Your task to perform on an android device: install app "Facebook Messenger" Image 0: 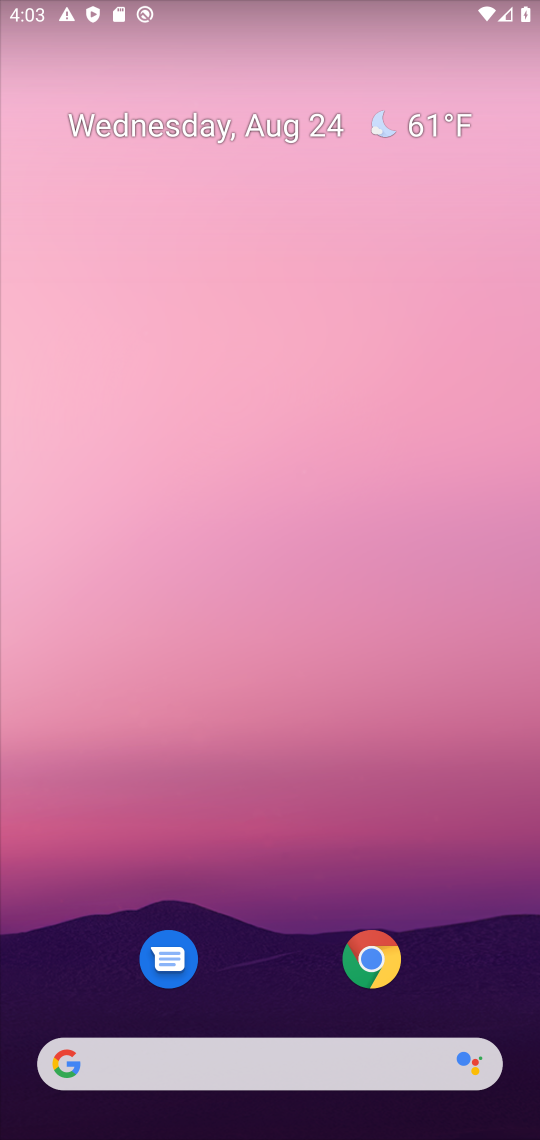
Step 0: drag from (285, 999) to (288, 337)
Your task to perform on an android device: install app "Facebook Messenger" Image 1: 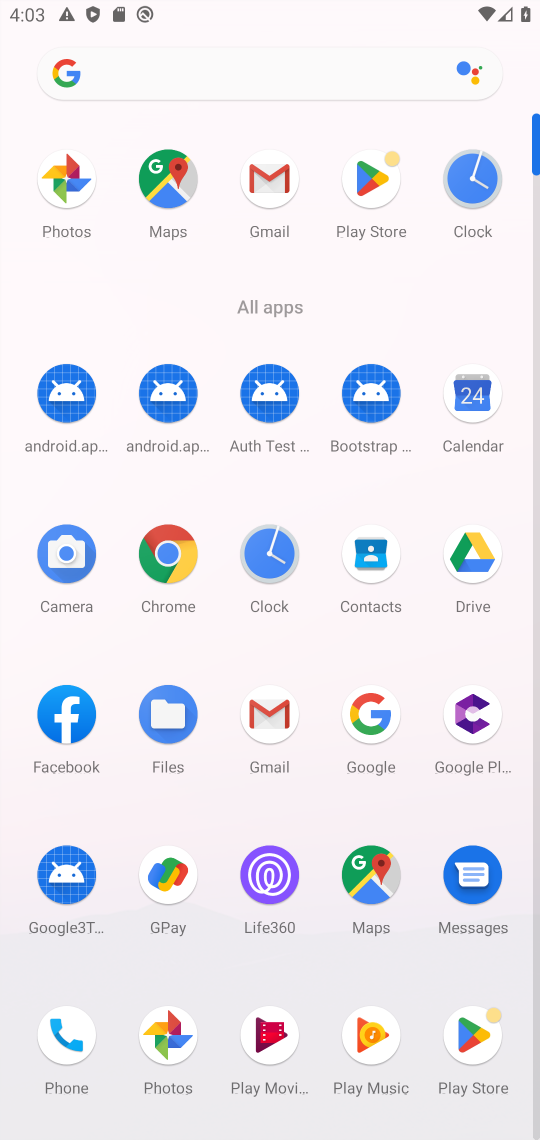
Step 1: click (370, 200)
Your task to perform on an android device: install app "Facebook Messenger" Image 2: 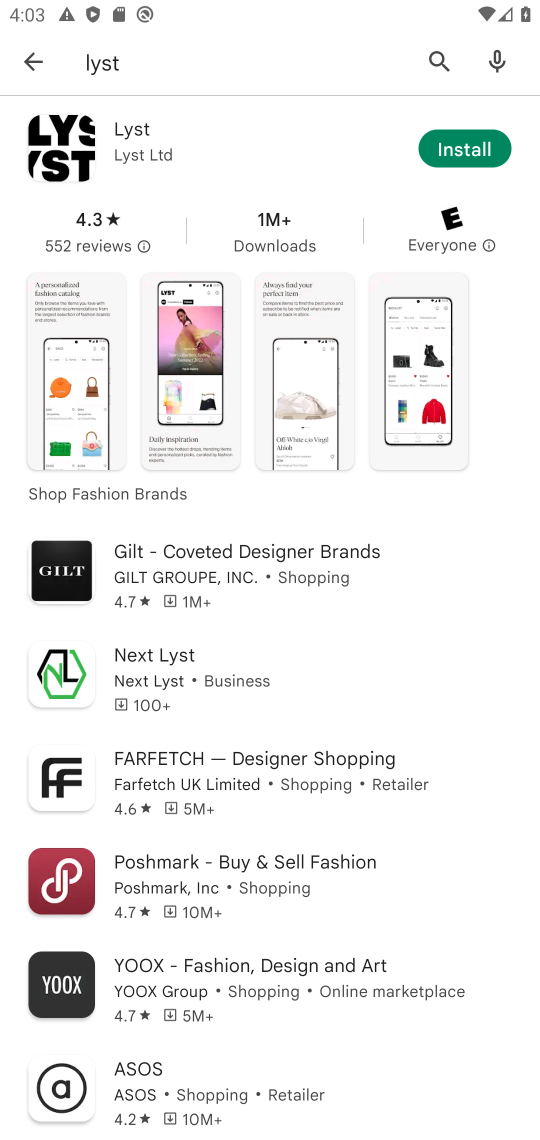
Step 2: click (438, 54)
Your task to perform on an android device: install app "Facebook Messenger" Image 3: 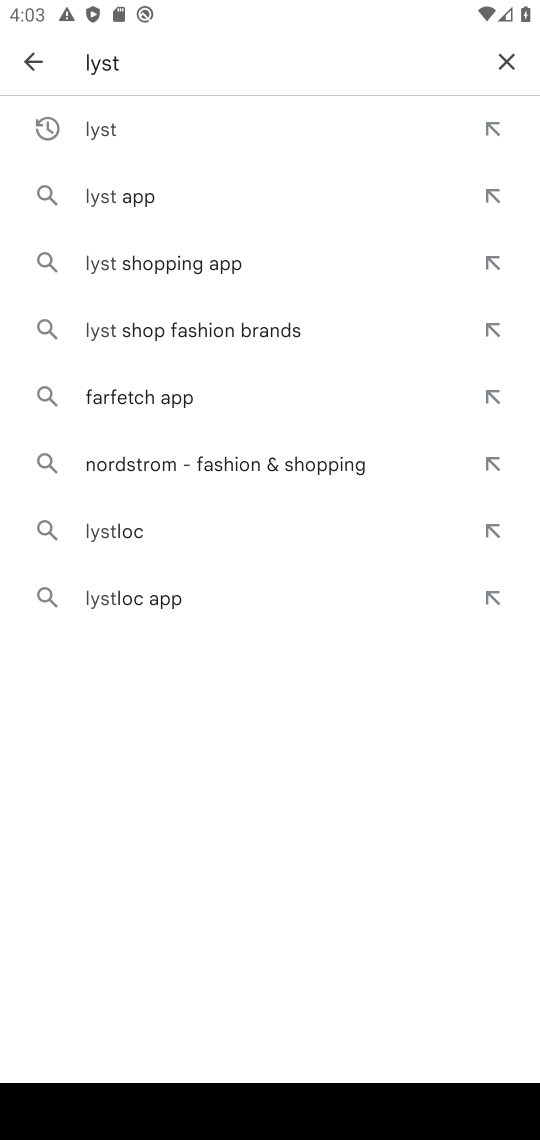
Step 3: click (498, 68)
Your task to perform on an android device: install app "Facebook Messenger" Image 4: 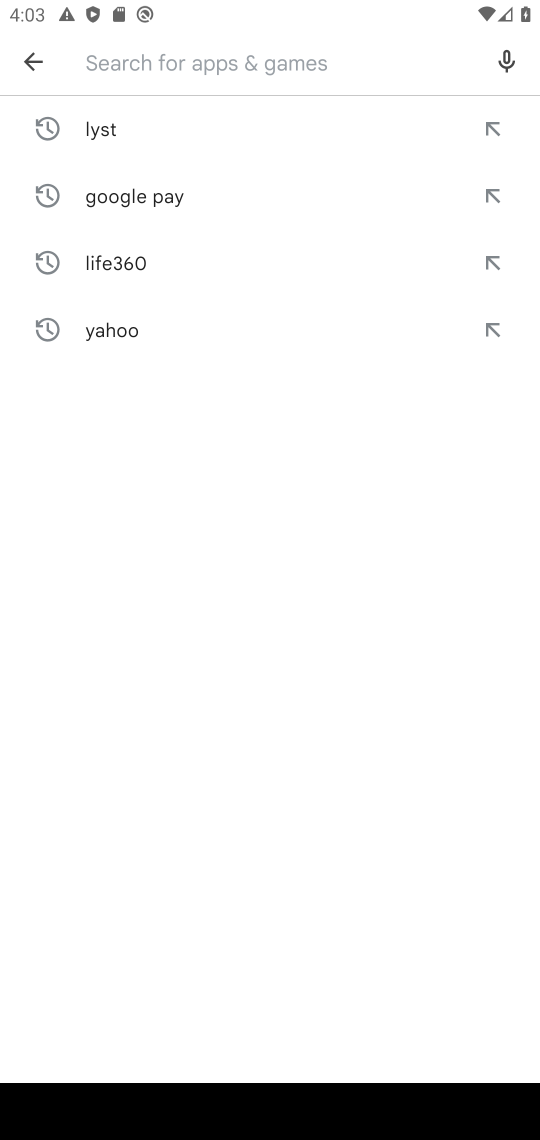
Step 4: type "facebook"
Your task to perform on an android device: install app "Facebook Messenger" Image 5: 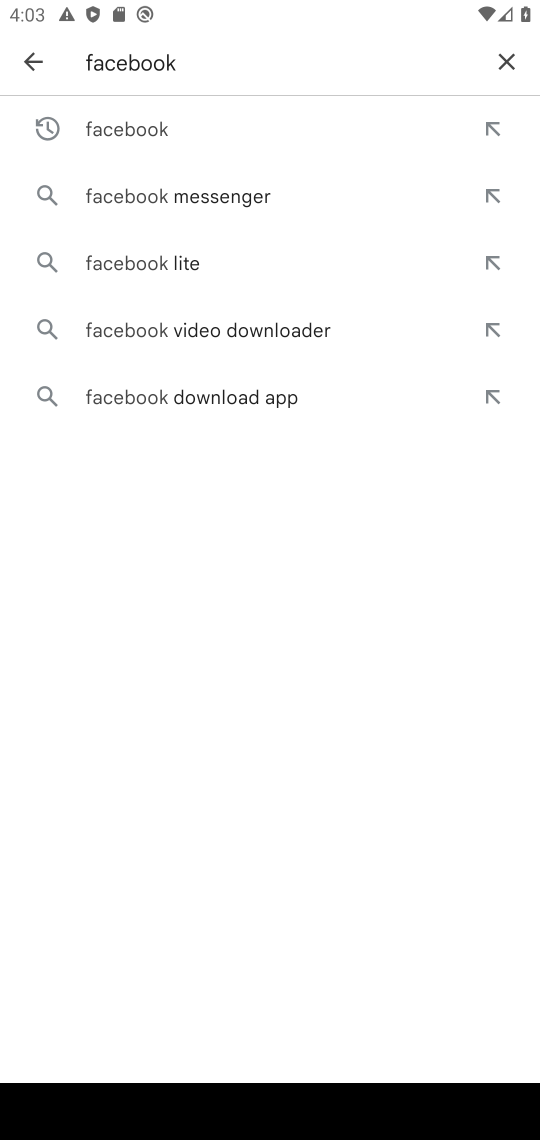
Step 5: click (279, 204)
Your task to perform on an android device: install app "Facebook Messenger" Image 6: 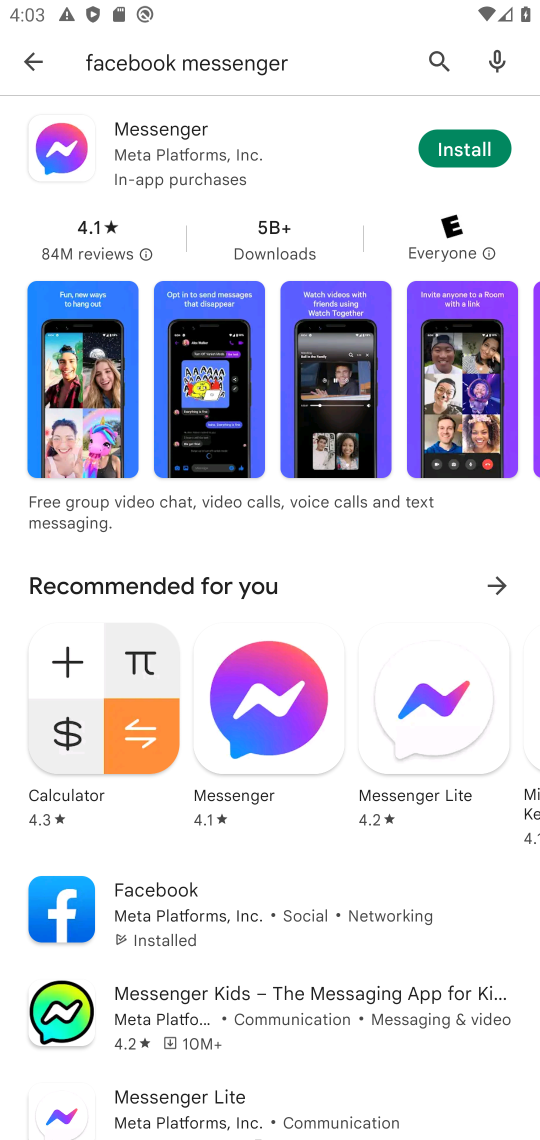
Step 6: click (437, 144)
Your task to perform on an android device: install app "Facebook Messenger" Image 7: 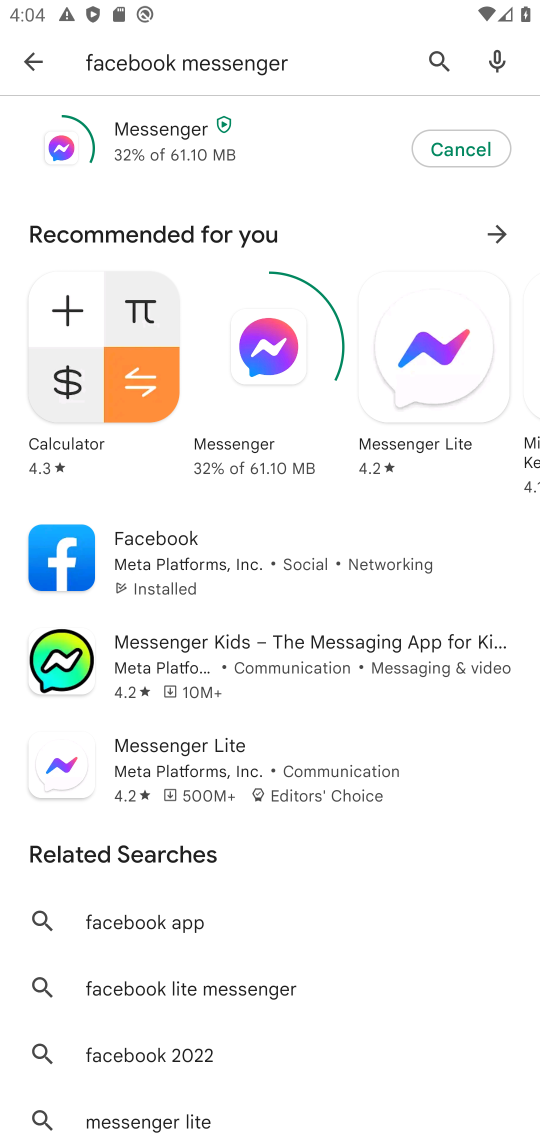
Step 7: task complete